Your task to perform on an android device: Open sound settings Image 0: 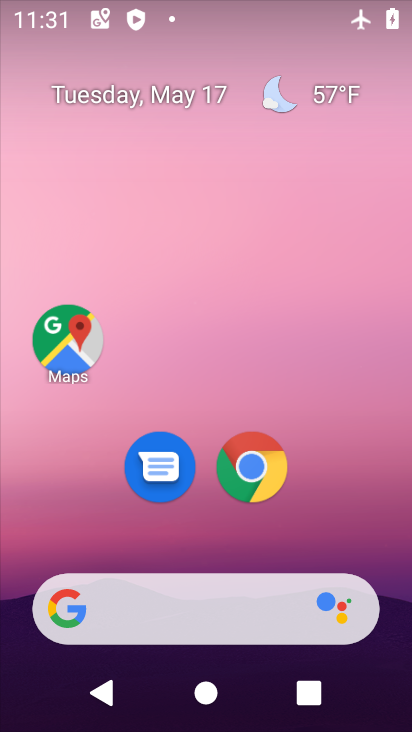
Step 0: drag from (262, 644) to (204, 147)
Your task to perform on an android device: Open sound settings Image 1: 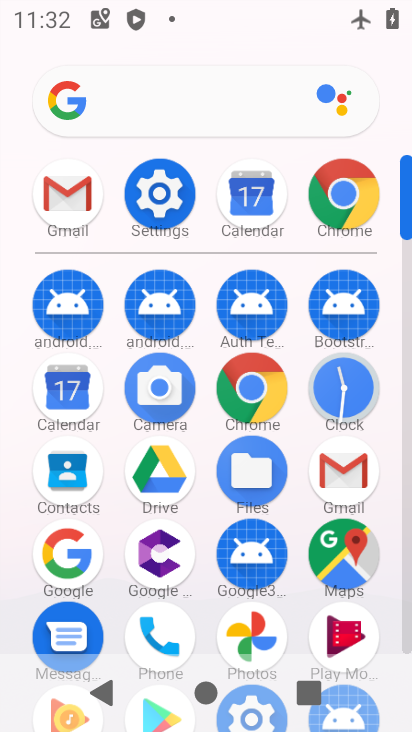
Step 1: click (153, 180)
Your task to perform on an android device: Open sound settings Image 2: 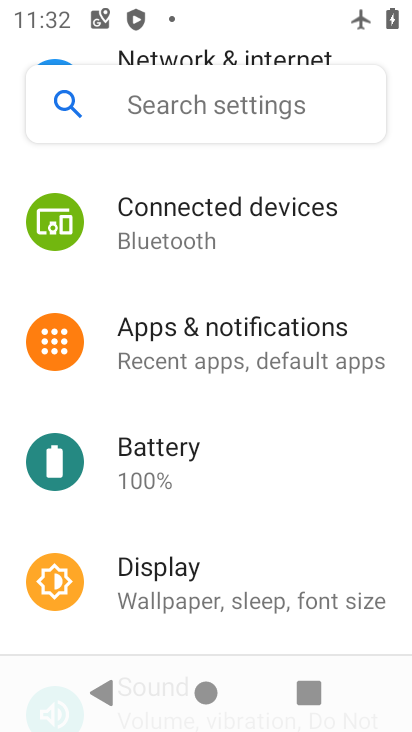
Step 2: click (163, 119)
Your task to perform on an android device: Open sound settings Image 3: 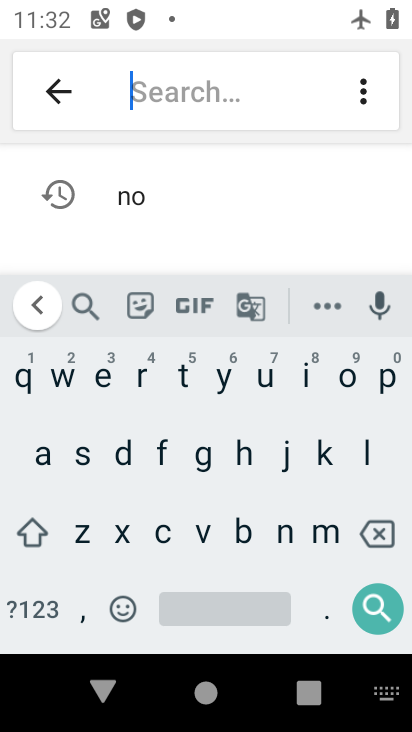
Step 3: click (80, 459)
Your task to perform on an android device: Open sound settings Image 4: 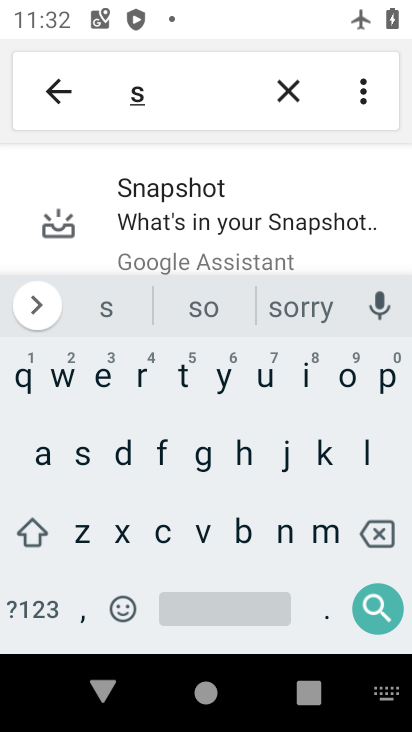
Step 4: click (339, 387)
Your task to perform on an android device: Open sound settings Image 5: 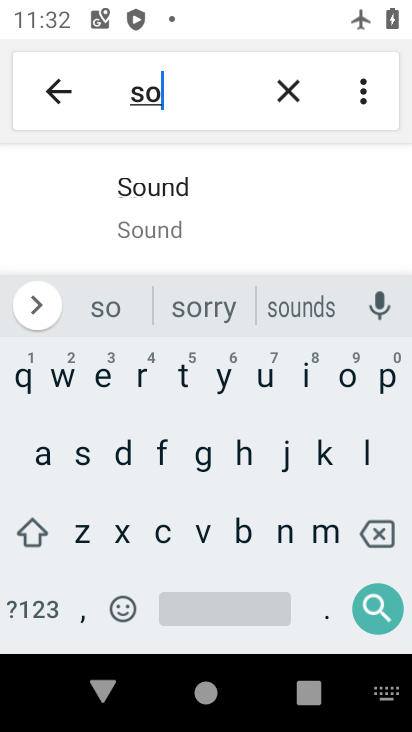
Step 5: click (221, 213)
Your task to perform on an android device: Open sound settings Image 6: 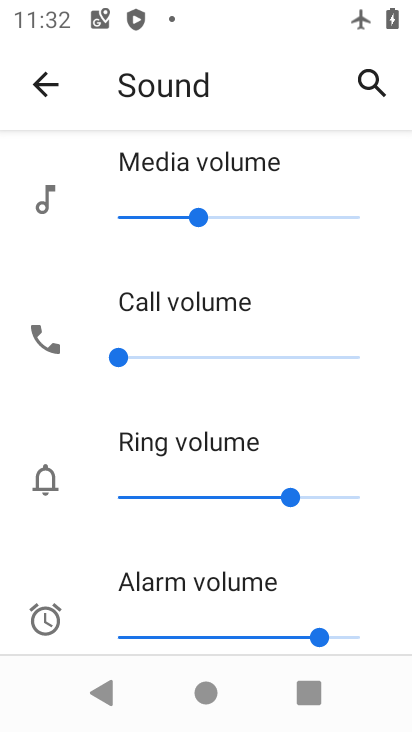
Step 6: task complete